Your task to perform on an android device: change the clock display to digital Image 0: 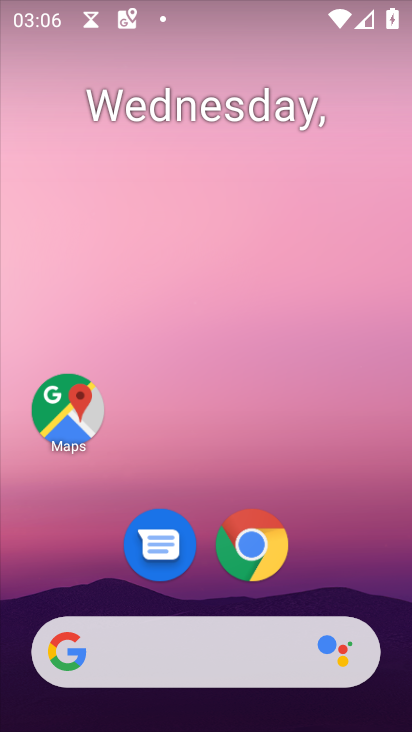
Step 0: press home button
Your task to perform on an android device: change the clock display to digital Image 1: 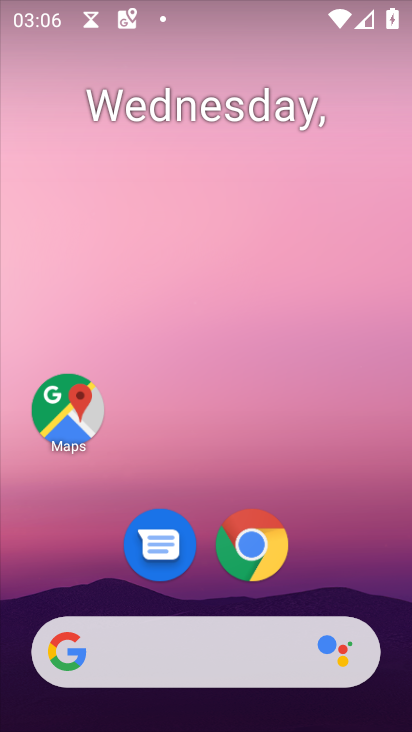
Step 1: drag from (253, 574) to (360, 154)
Your task to perform on an android device: change the clock display to digital Image 2: 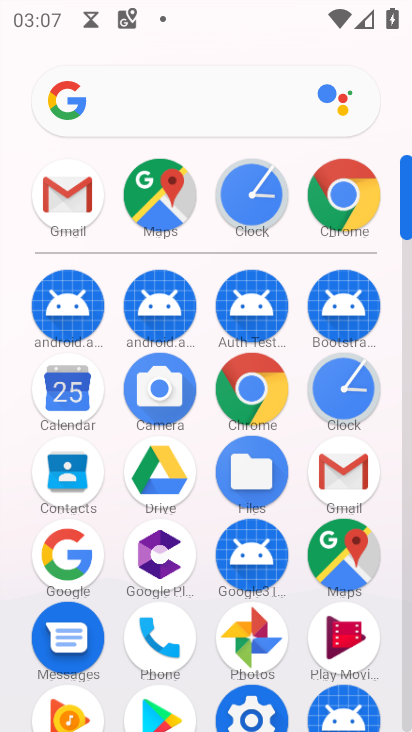
Step 2: click (345, 393)
Your task to perform on an android device: change the clock display to digital Image 3: 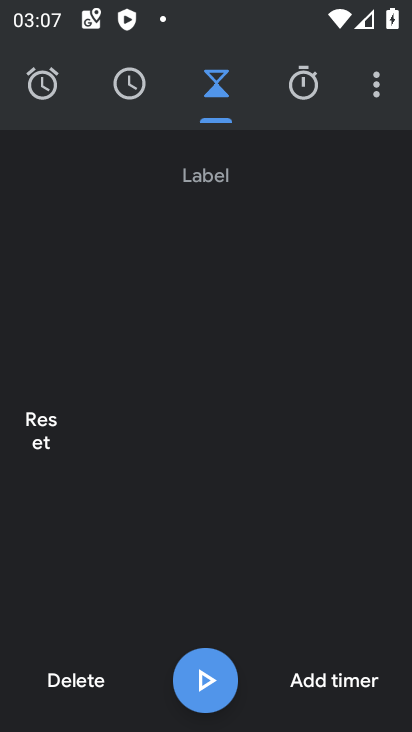
Step 3: click (372, 81)
Your task to perform on an android device: change the clock display to digital Image 4: 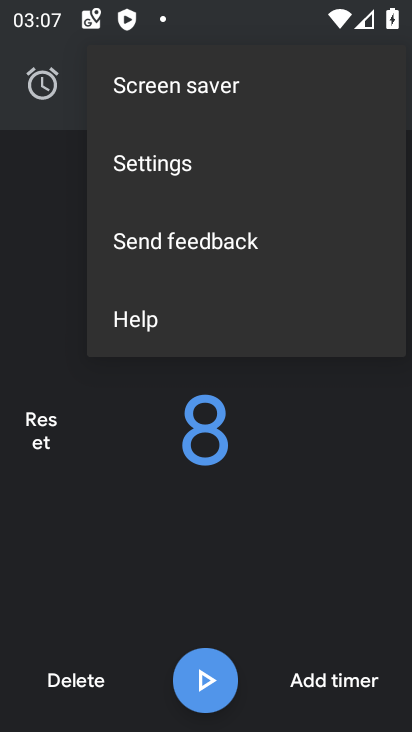
Step 4: click (176, 167)
Your task to perform on an android device: change the clock display to digital Image 5: 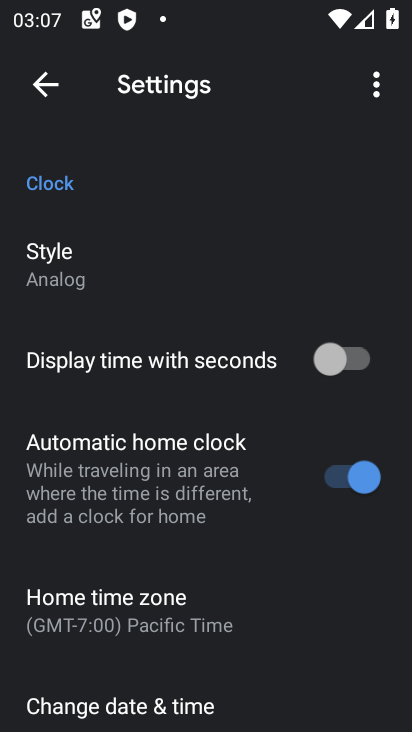
Step 5: click (98, 278)
Your task to perform on an android device: change the clock display to digital Image 6: 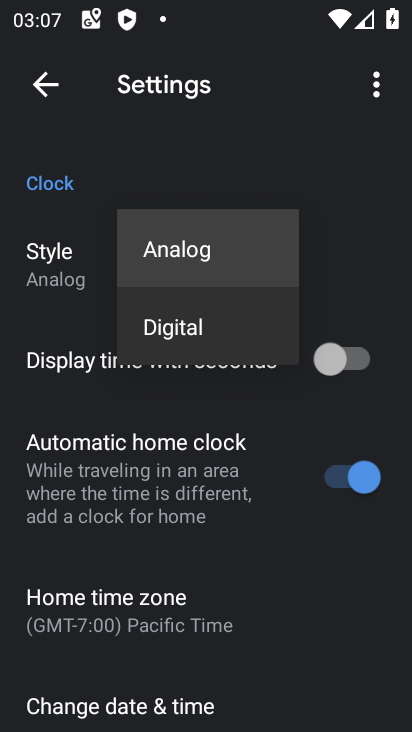
Step 6: click (155, 320)
Your task to perform on an android device: change the clock display to digital Image 7: 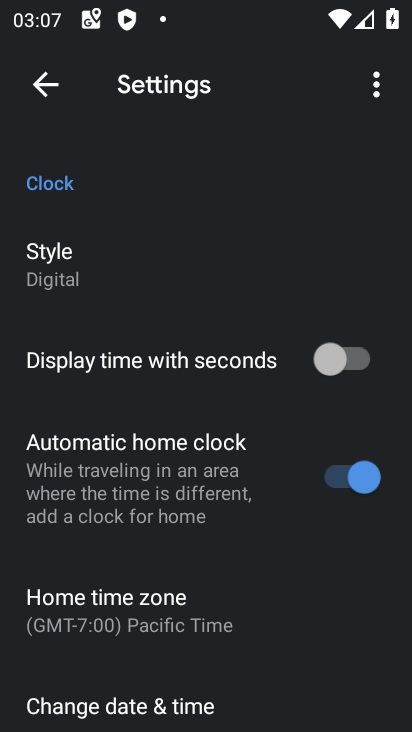
Step 7: task complete